Your task to perform on an android device: Go to Google maps Image 0: 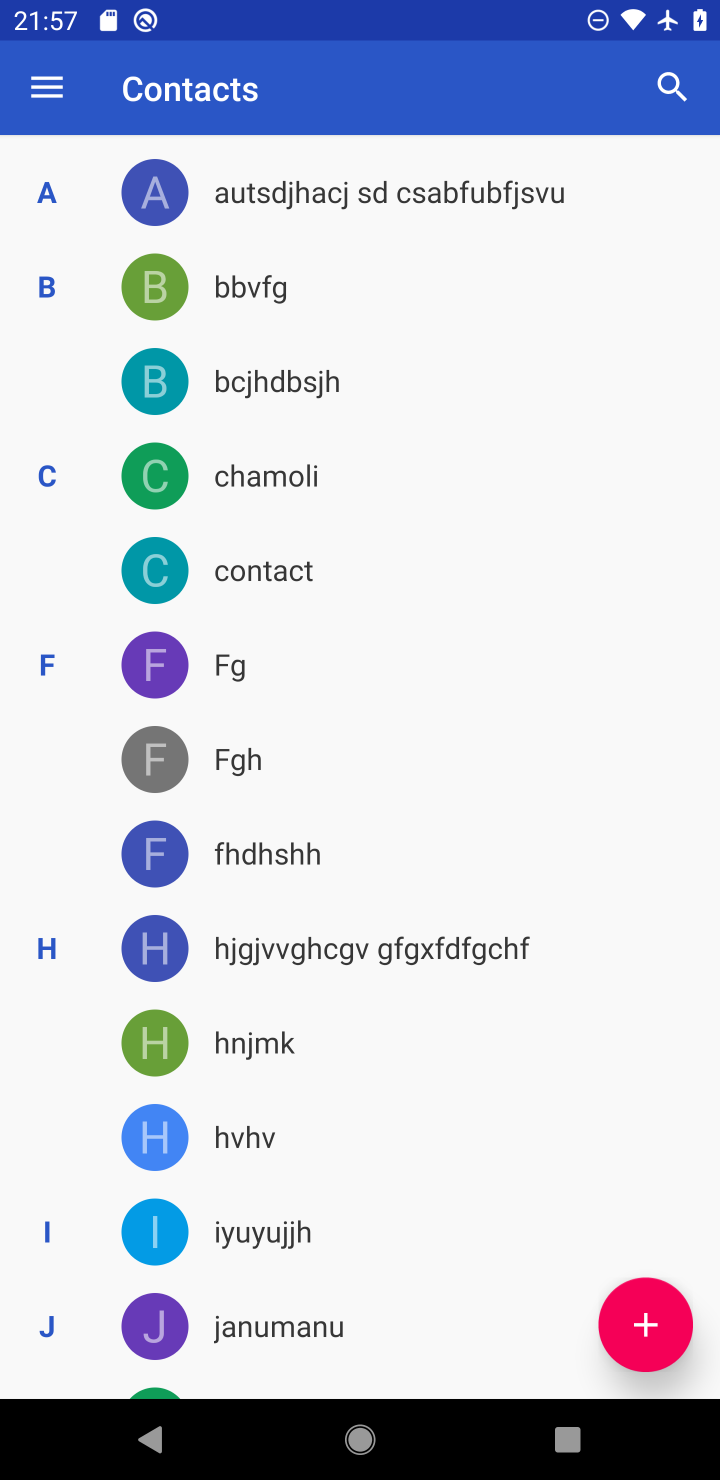
Step 0: press home button
Your task to perform on an android device: Go to Google maps Image 1: 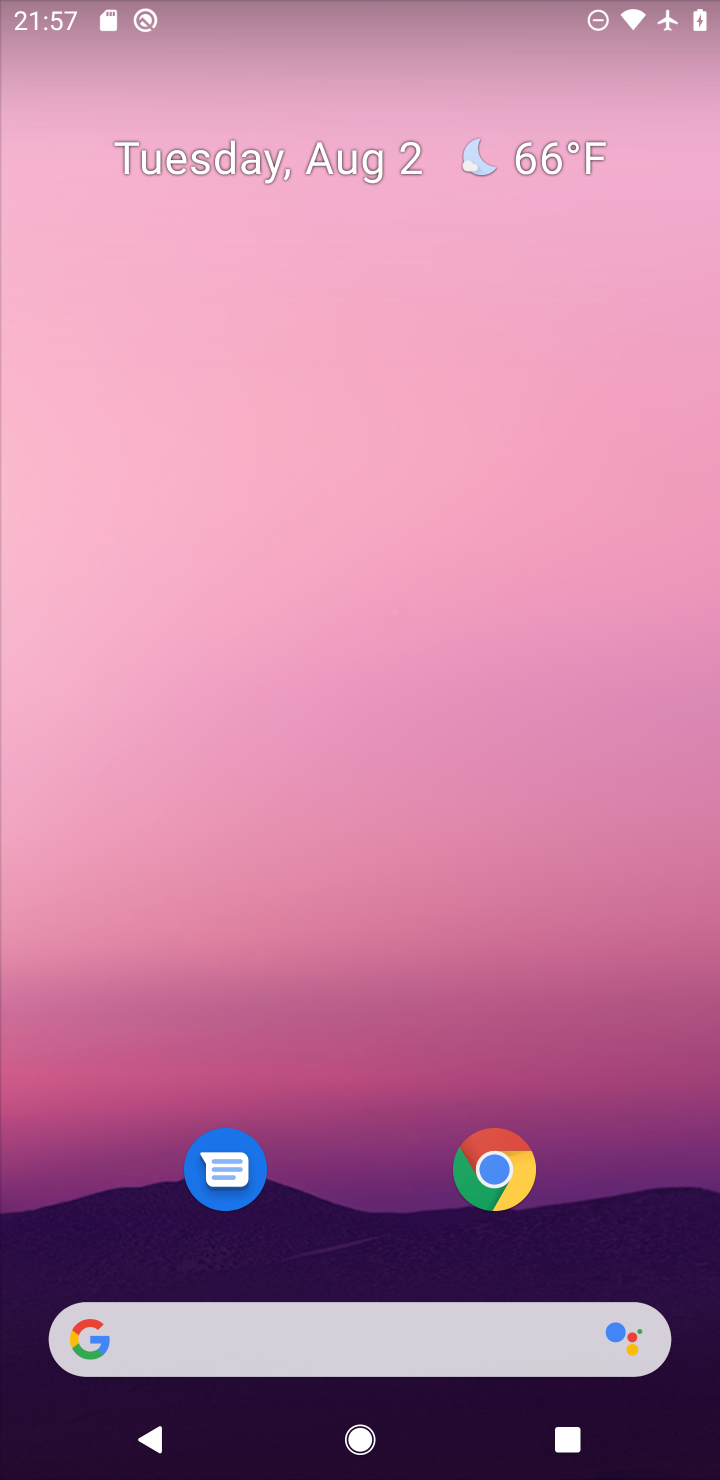
Step 1: drag from (338, 1176) to (240, 18)
Your task to perform on an android device: Go to Google maps Image 2: 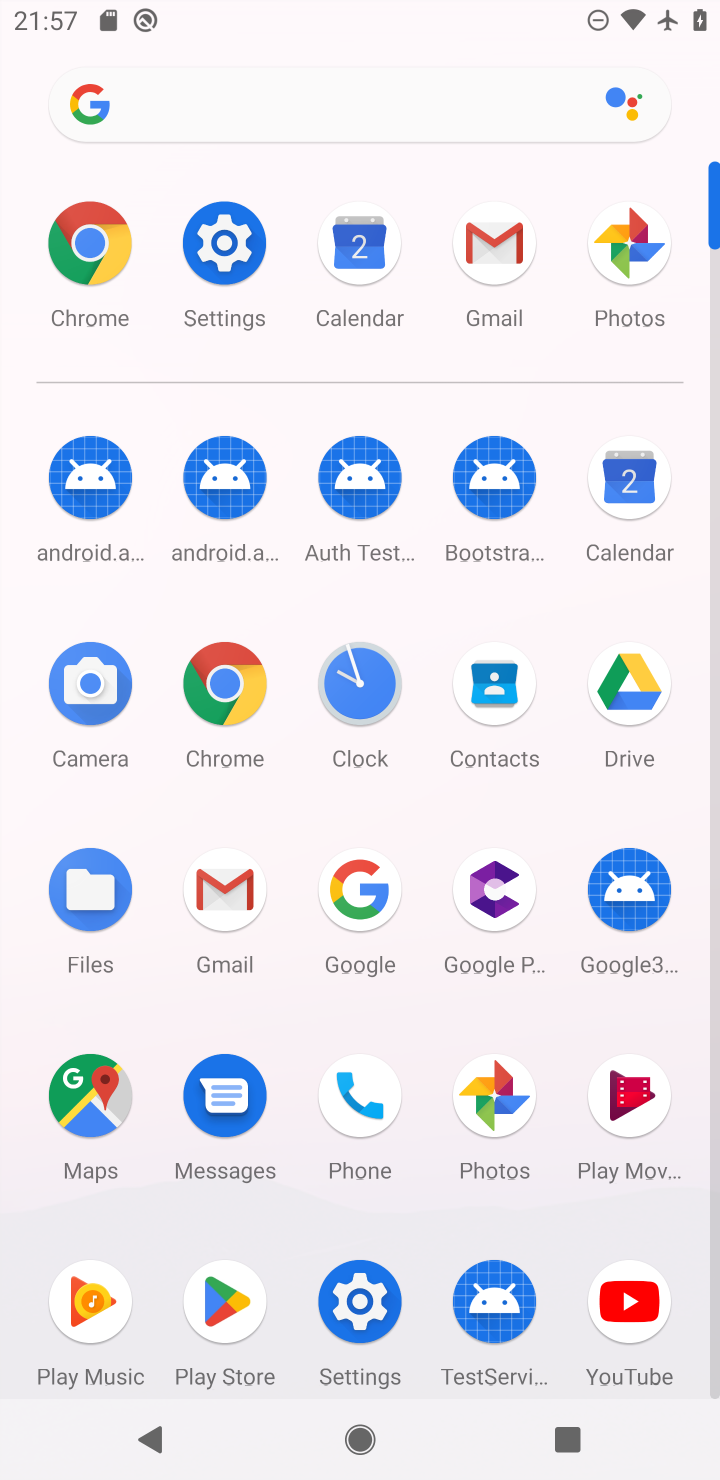
Step 2: click (97, 1185)
Your task to perform on an android device: Go to Google maps Image 3: 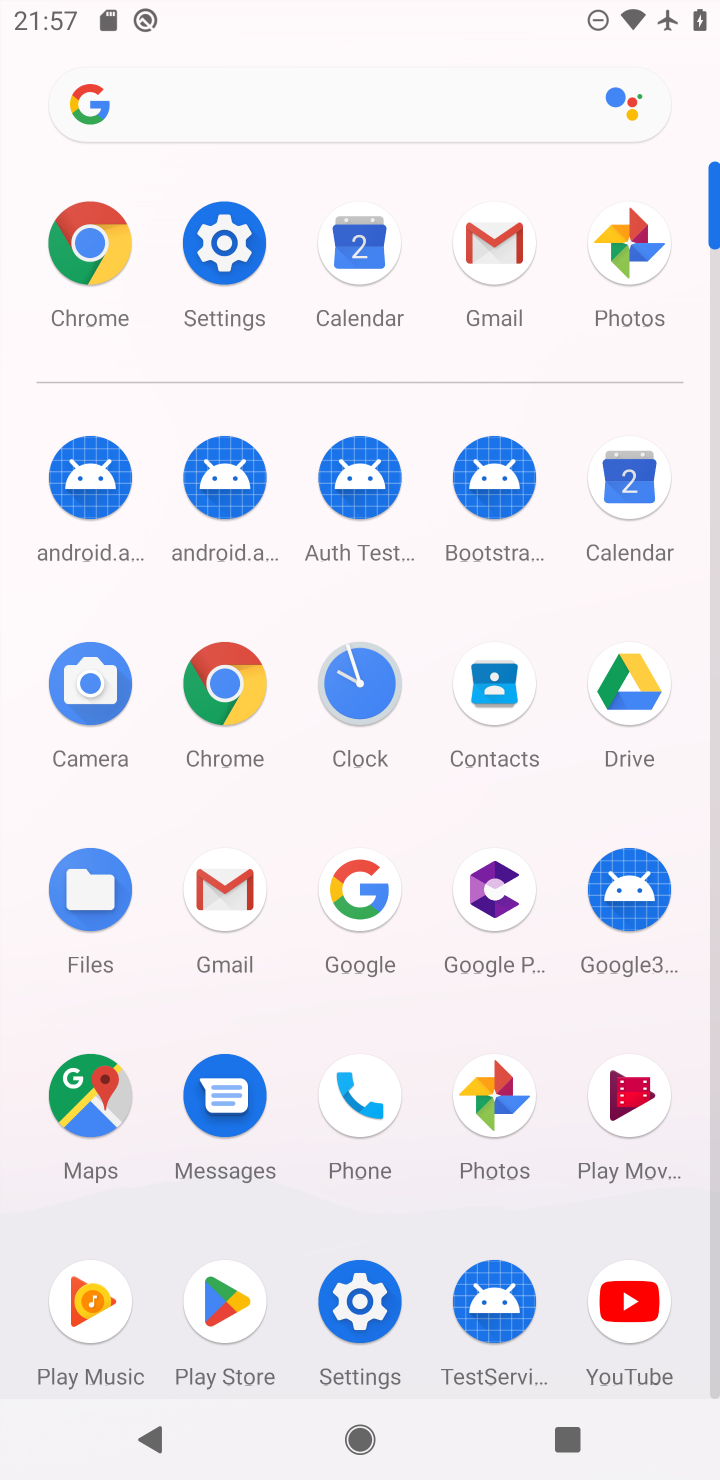
Step 3: click (88, 1106)
Your task to perform on an android device: Go to Google maps Image 4: 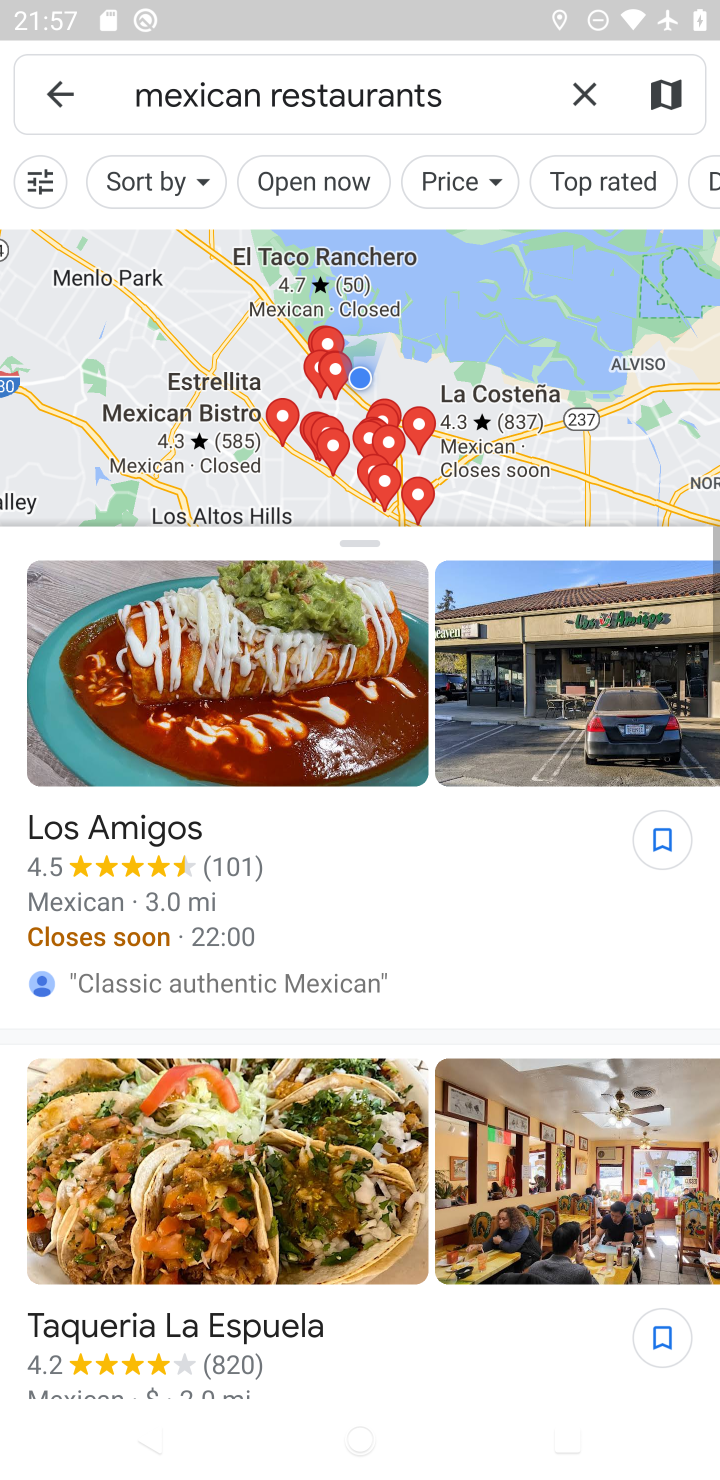
Step 4: task complete